Your task to perform on an android device: make emails show in primary in the gmail app Image 0: 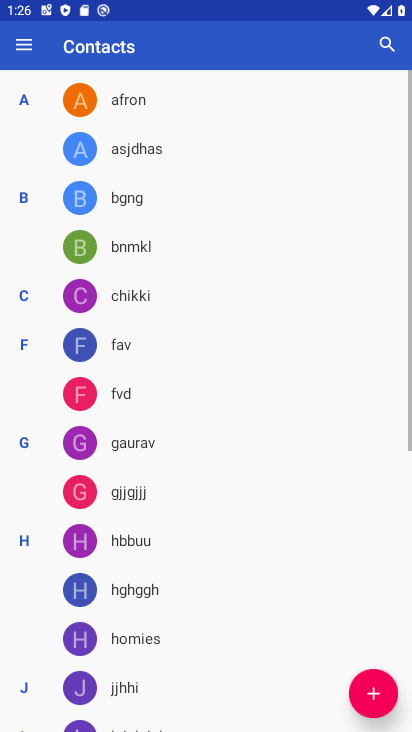
Step 0: press home button
Your task to perform on an android device: make emails show in primary in the gmail app Image 1: 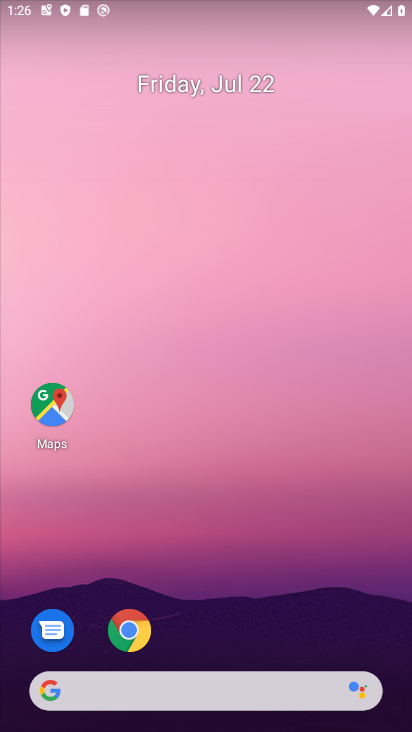
Step 1: drag from (202, 565) to (210, 244)
Your task to perform on an android device: make emails show in primary in the gmail app Image 2: 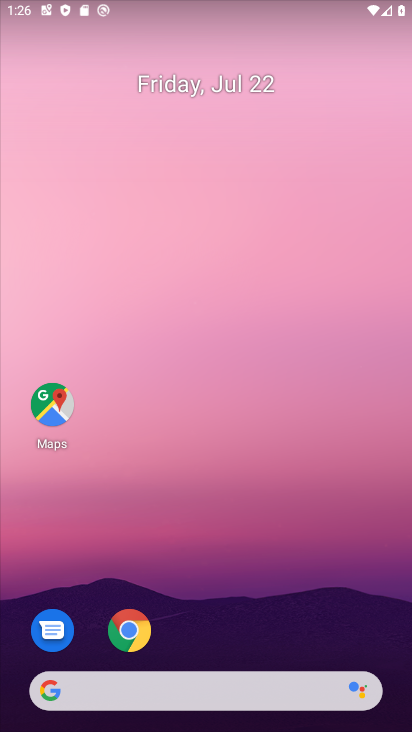
Step 2: drag from (196, 596) to (196, 78)
Your task to perform on an android device: make emails show in primary in the gmail app Image 3: 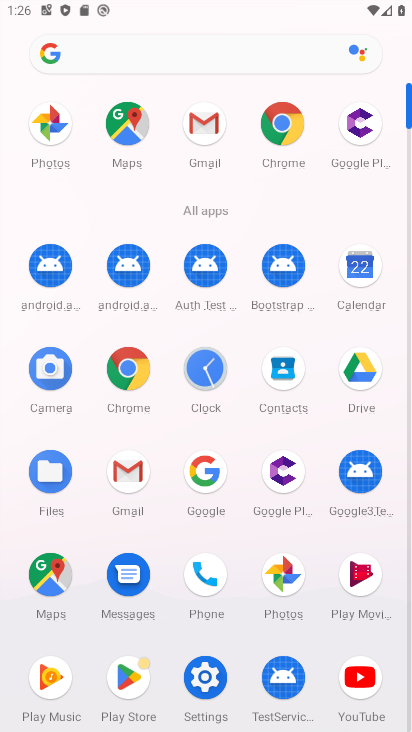
Step 3: click (127, 471)
Your task to perform on an android device: make emails show in primary in the gmail app Image 4: 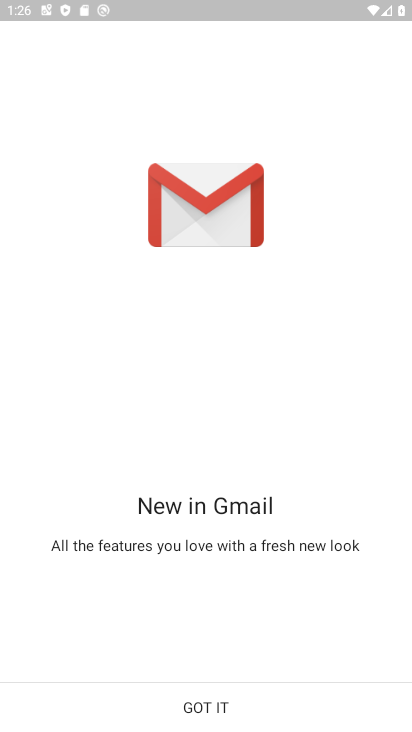
Step 4: click (213, 692)
Your task to perform on an android device: make emails show in primary in the gmail app Image 5: 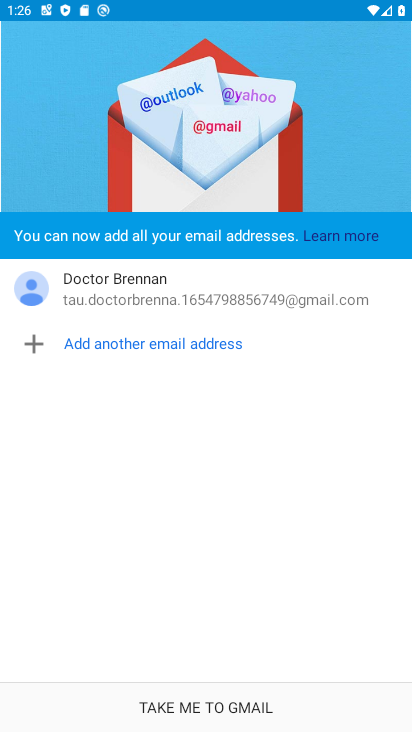
Step 5: click (213, 692)
Your task to perform on an android device: make emails show in primary in the gmail app Image 6: 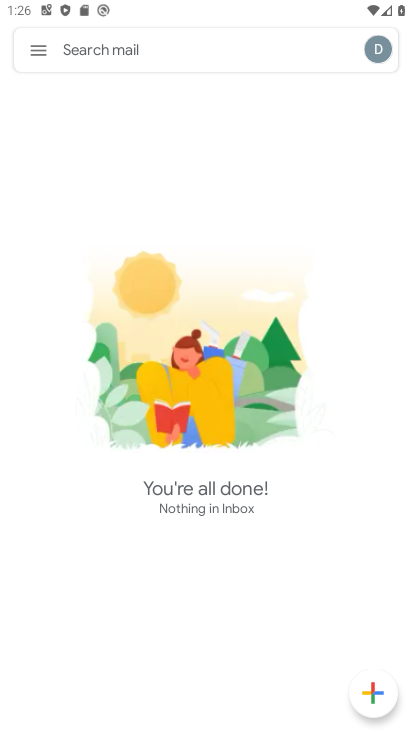
Step 6: click (41, 50)
Your task to perform on an android device: make emails show in primary in the gmail app Image 7: 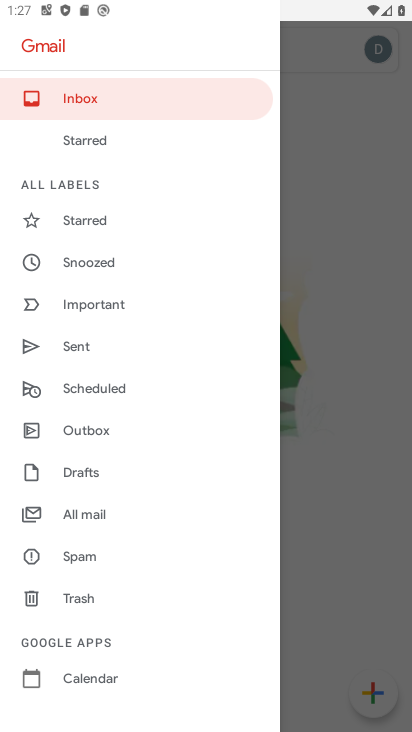
Step 7: click (61, 509)
Your task to perform on an android device: make emails show in primary in the gmail app Image 8: 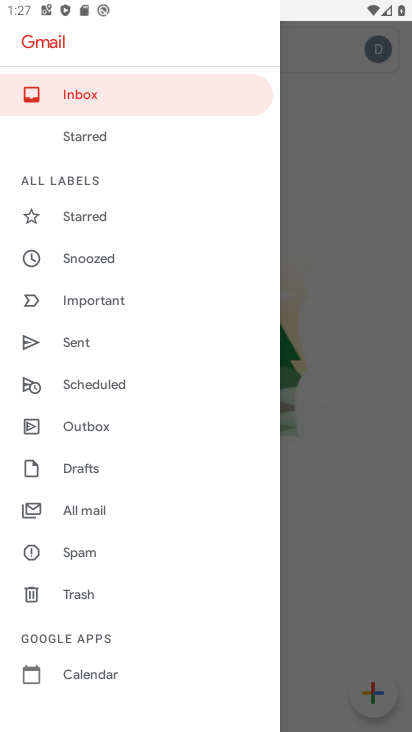
Step 8: drag from (114, 578) to (122, 325)
Your task to perform on an android device: make emails show in primary in the gmail app Image 9: 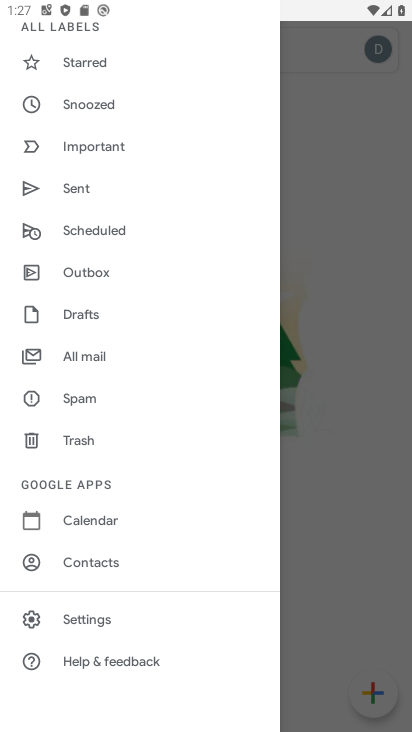
Step 9: drag from (102, 540) to (141, 240)
Your task to perform on an android device: make emails show in primary in the gmail app Image 10: 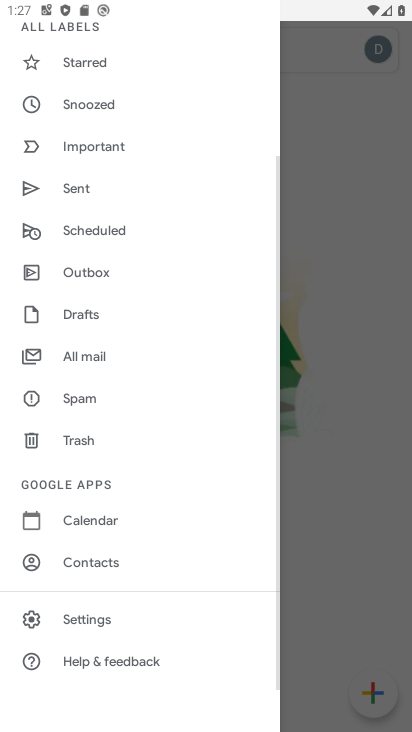
Step 10: click (76, 611)
Your task to perform on an android device: make emails show in primary in the gmail app Image 11: 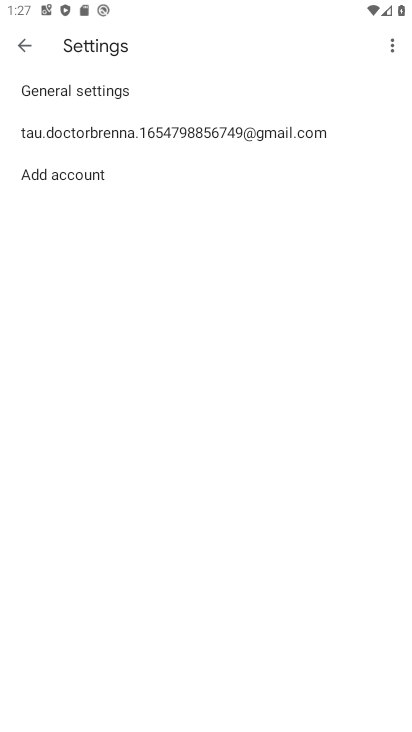
Step 11: click (182, 141)
Your task to perform on an android device: make emails show in primary in the gmail app Image 12: 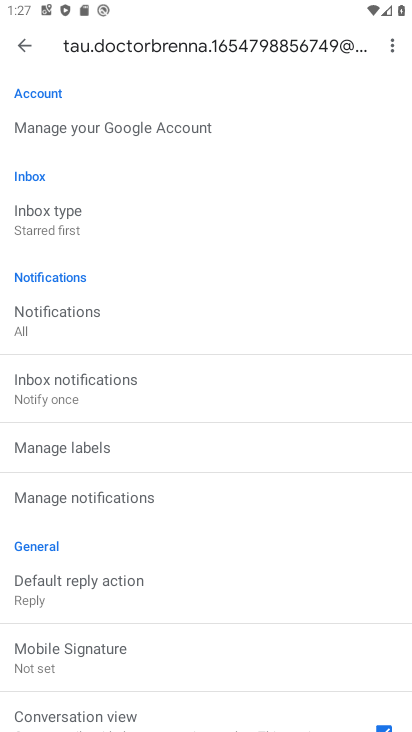
Step 12: task complete